Your task to perform on an android device: turn on data saver in the chrome app Image 0: 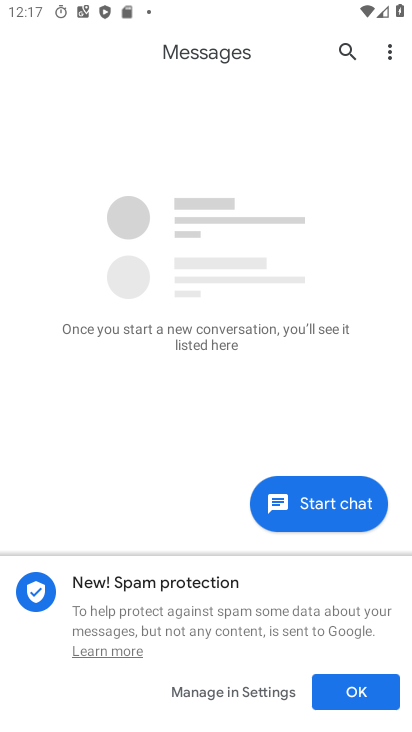
Step 0: click (249, 639)
Your task to perform on an android device: turn on data saver in the chrome app Image 1: 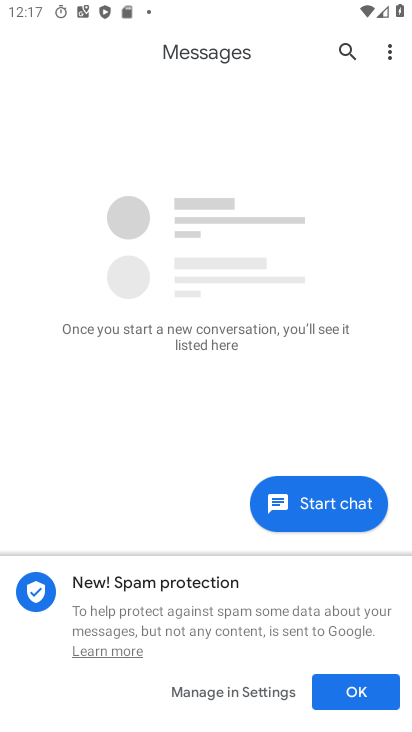
Step 1: press home button
Your task to perform on an android device: turn on data saver in the chrome app Image 2: 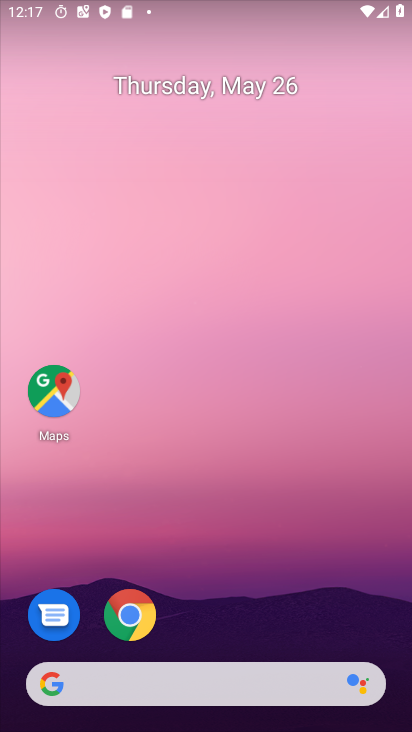
Step 2: drag from (243, 631) to (186, 206)
Your task to perform on an android device: turn on data saver in the chrome app Image 3: 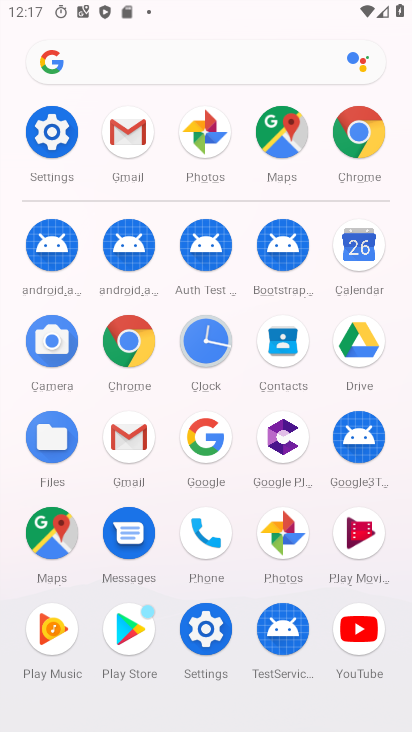
Step 3: click (361, 143)
Your task to perform on an android device: turn on data saver in the chrome app Image 4: 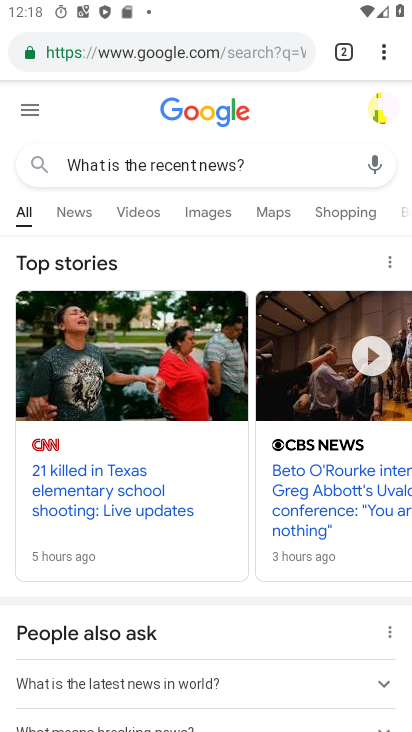
Step 4: click (389, 64)
Your task to perform on an android device: turn on data saver in the chrome app Image 5: 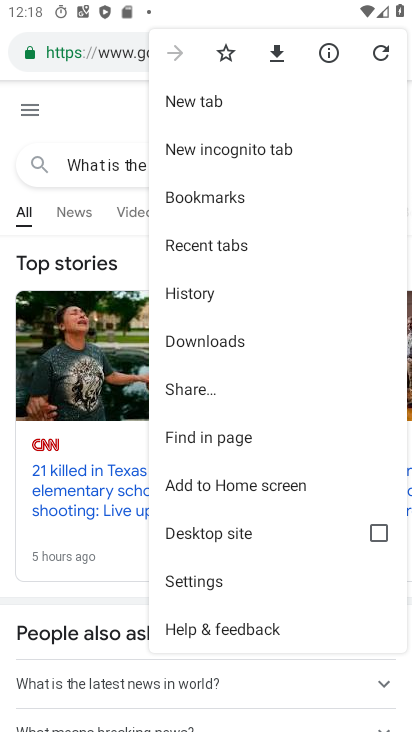
Step 5: click (233, 580)
Your task to perform on an android device: turn on data saver in the chrome app Image 6: 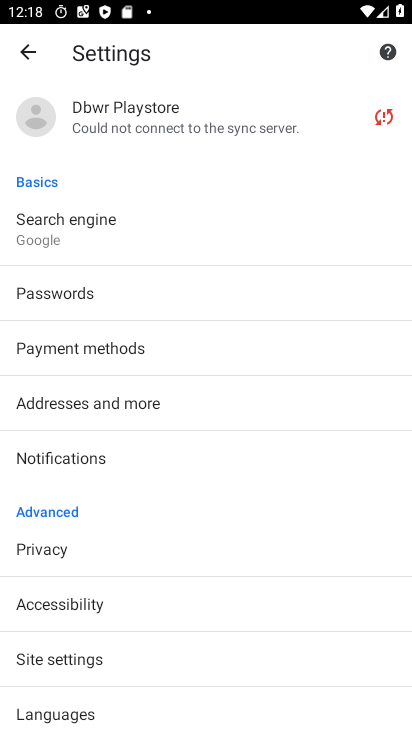
Step 6: drag from (283, 701) to (257, 508)
Your task to perform on an android device: turn on data saver in the chrome app Image 7: 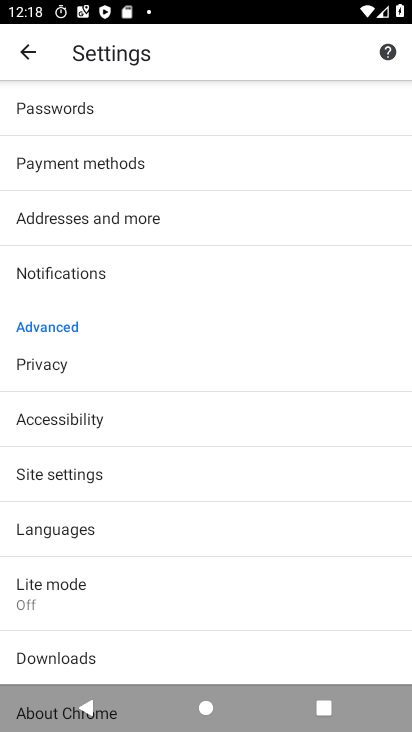
Step 7: click (234, 594)
Your task to perform on an android device: turn on data saver in the chrome app Image 8: 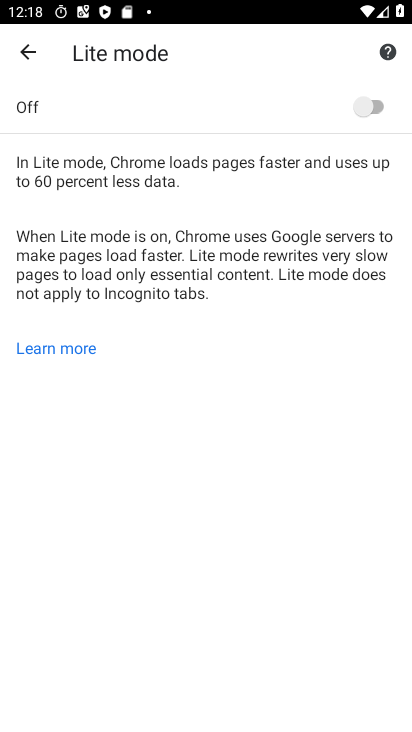
Step 8: click (378, 99)
Your task to perform on an android device: turn on data saver in the chrome app Image 9: 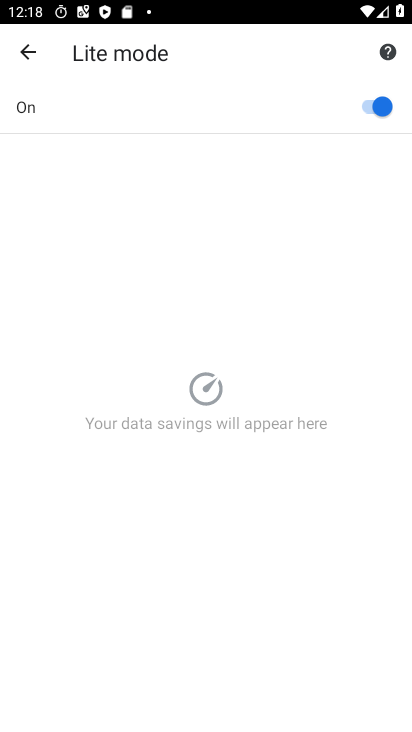
Step 9: task complete